Your task to perform on an android device: turn off smart reply in the gmail app Image 0: 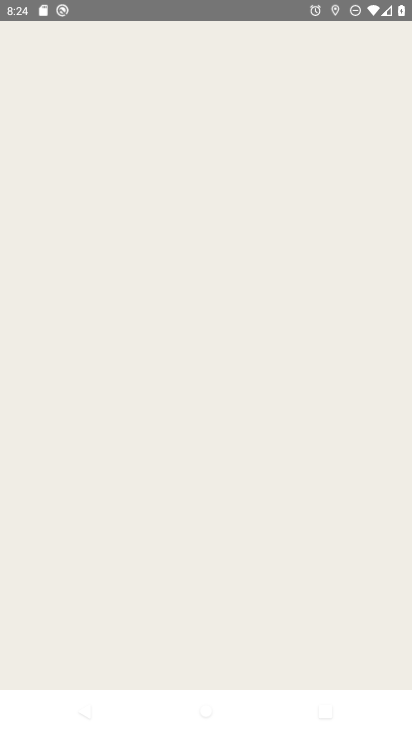
Step 0: click (131, 585)
Your task to perform on an android device: turn off smart reply in the gmail app Image 1: 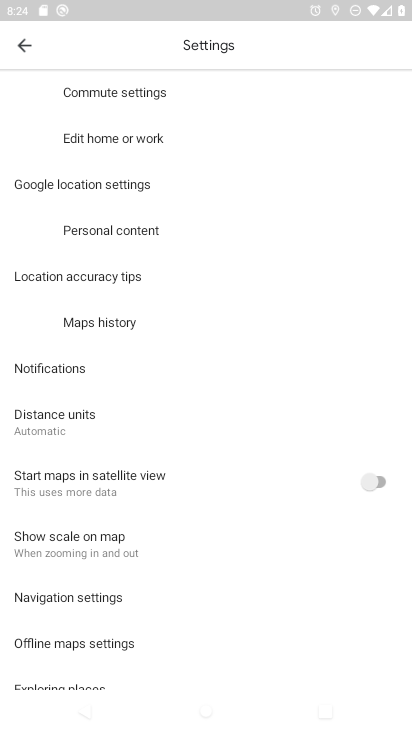
Step 1: press home button
Your task to perform on an android device: turn off smart reply in the gmail app Image 2: 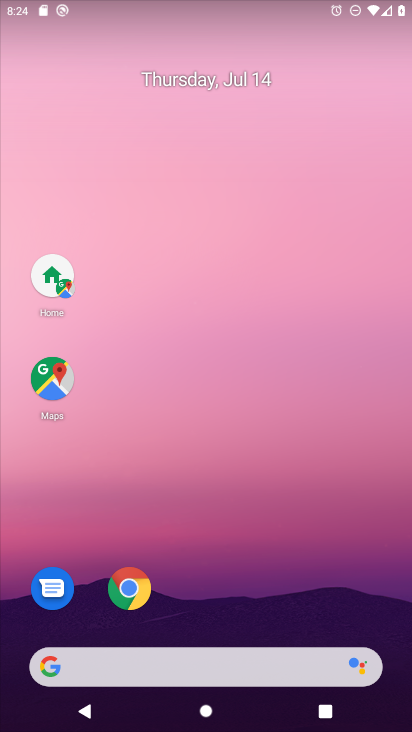
Step 2: drag from (29, 698) to (228, 58)
Your task to perform on an android device: turn off smart reply in the gmail app Image 3: 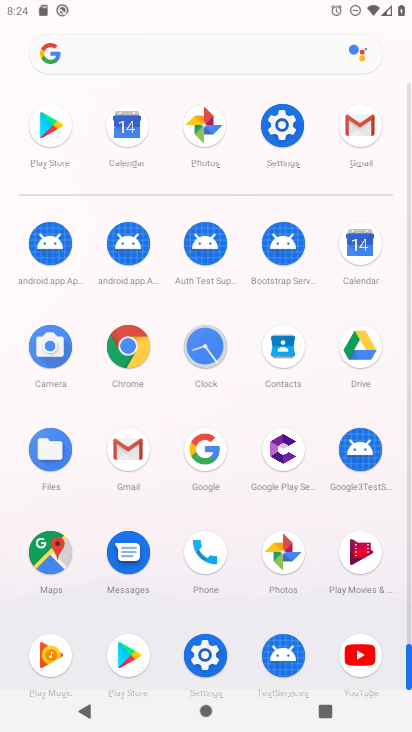
Step 3: click (132, 458)
Your task to perform on an android device: turn off smart reply in the gmail app Image 4: 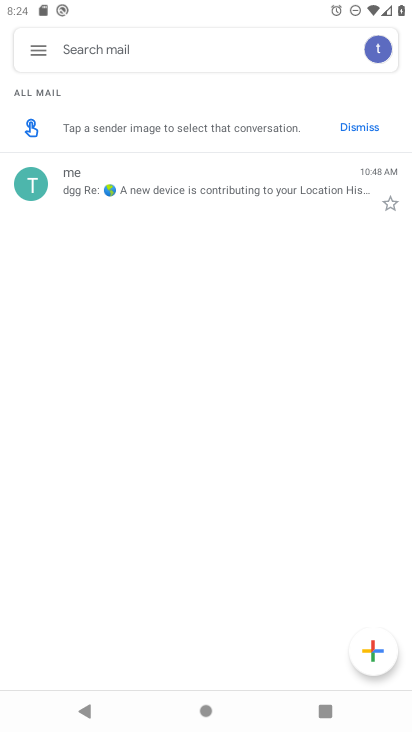
Step 4: click (38, 45)
Your task to perform on an android device: turn off smart reply in the gmail app Image 5: 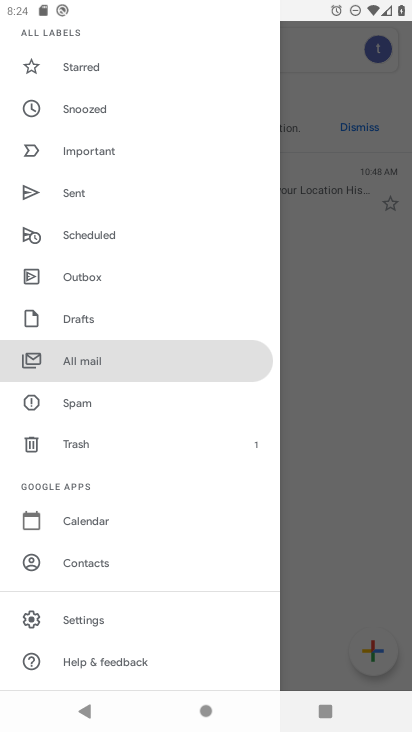
Step 5: click (76, 618)
Your task to perform on an android device: turn off smart reply in the gmail app Image 6: 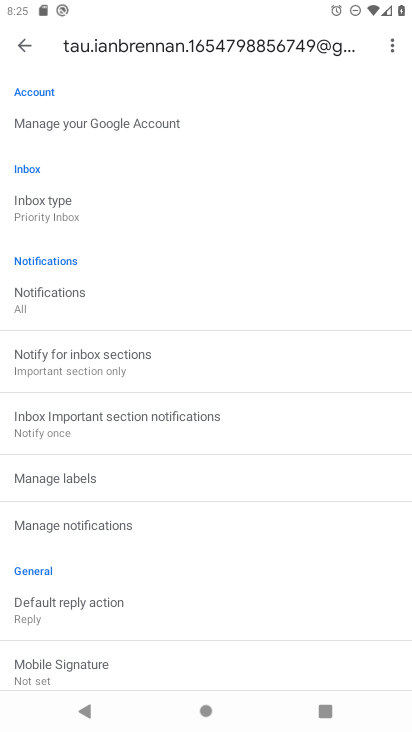
Step 6: drag from (172, 646) to (188, 289)
Your task to perform on an android device: turn off smart reply in the gmail app Image 7: 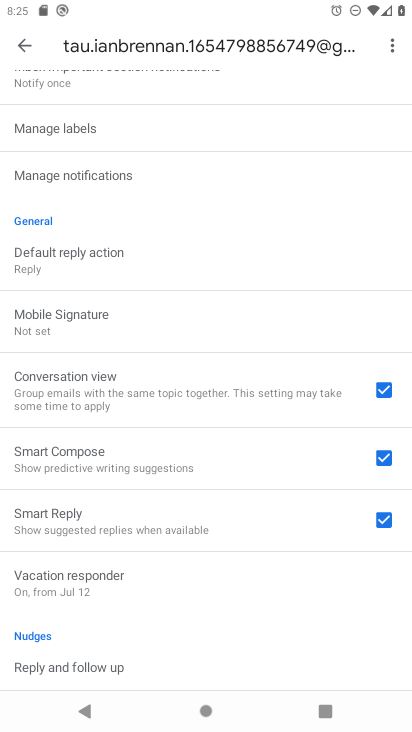
Step 7: click (389, 515)
Your task to perform on an android device: turn off smart reply in the gmail app Image 8: 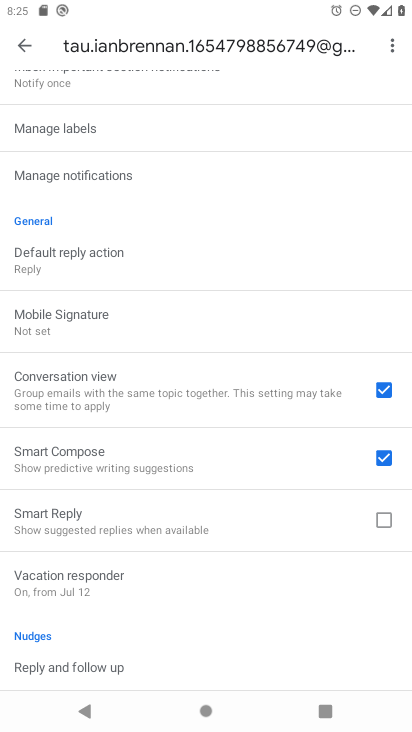
Step 8: task complete